Your task to perform on an android device: toggle improve location accuracy Image 0: 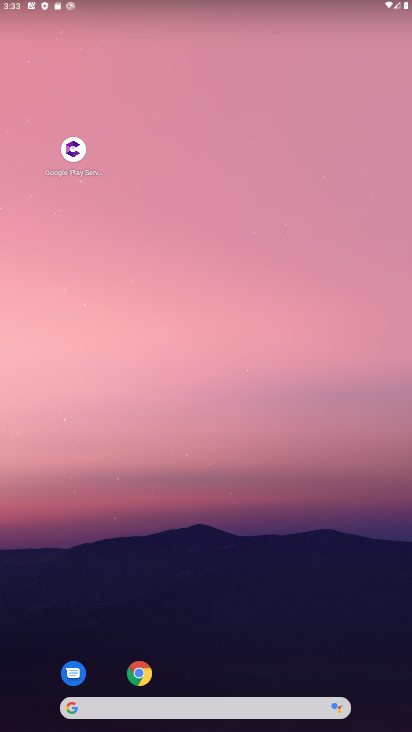
Step 0: drag from (201, 654) to (172, 111)
Your task to perform on an android device: toggle improve location accuracy Image 1: 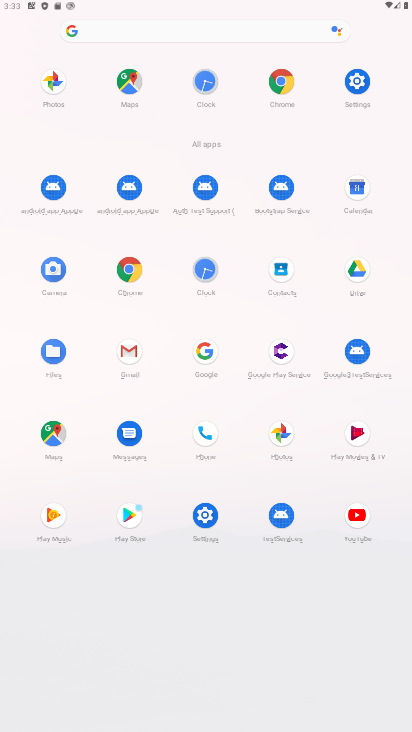
Step 1: click (361, 86)
Your task to perform on an android device: toggle improve location accuracy Image 2: 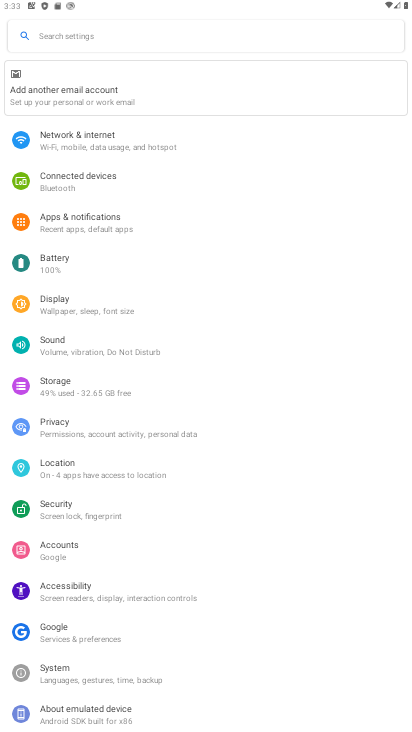
Step 2: click (80, 470)
Your task to perform on an android device: toggle improve location accuracy Image 3: 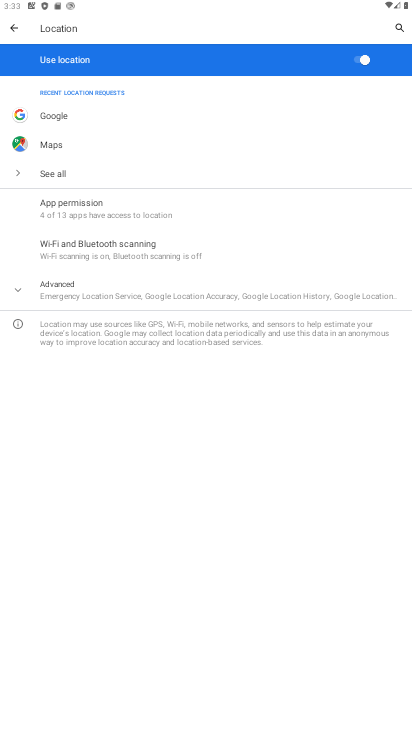
Step 3: click (90, 297)
Your task to perform on an android device: toggle improve location accuracy Image 4: 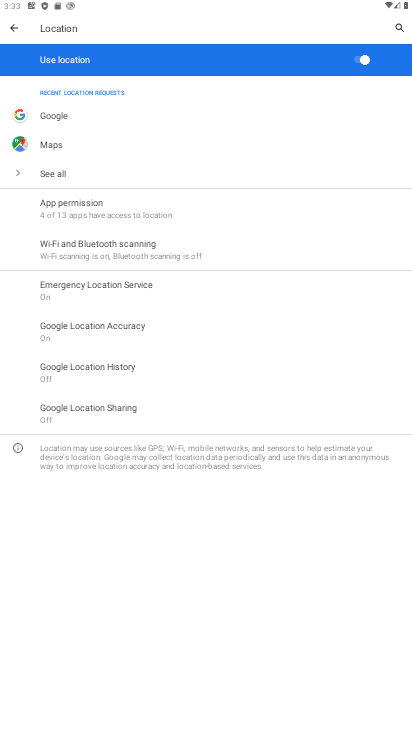
Step 4: click (108, 330)
Your task to perform on an android device: toggle improve location accuracy Image 5: 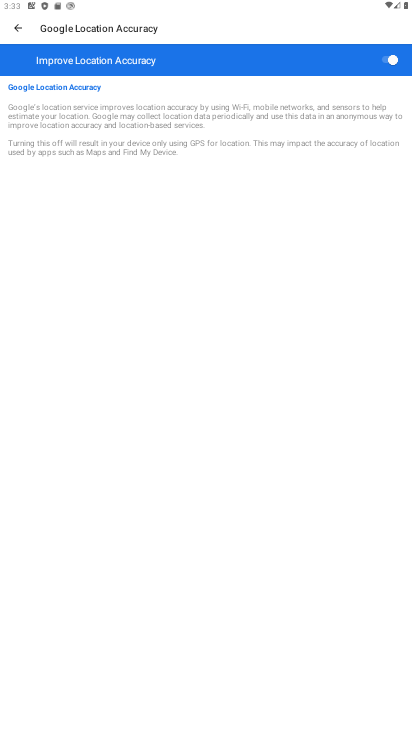
Step 5: click (396, 56)
Your task to perform on an android device: toggle improve location accuracy Image 6: 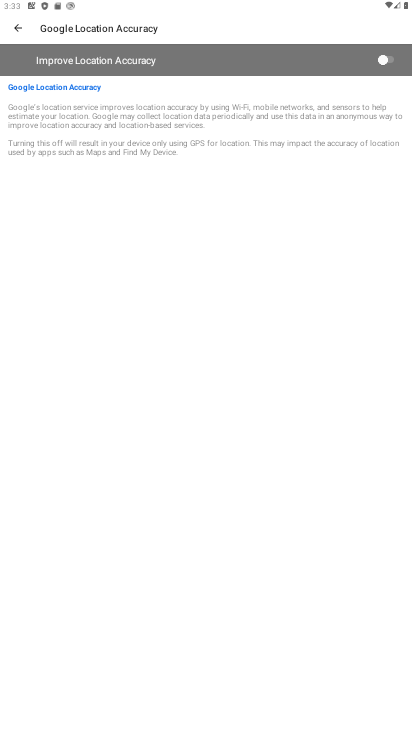
Step 6: task complete